Your task to perform on an android device: refresh tabs in the chrome app Image 0: 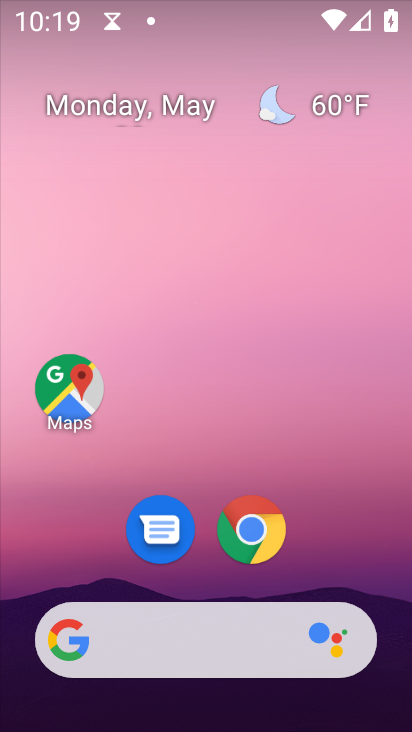
Step 0: click (254, 543)
Your task to perform on an android device: refresh tabs in the chrome app Image 1: 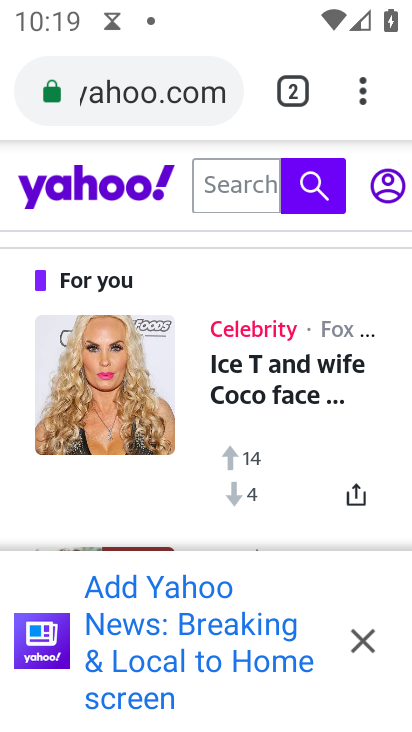
Step 1: click (237, 526)
Your task to perform on an android device: refresh tabs in the chrome app Image 2: 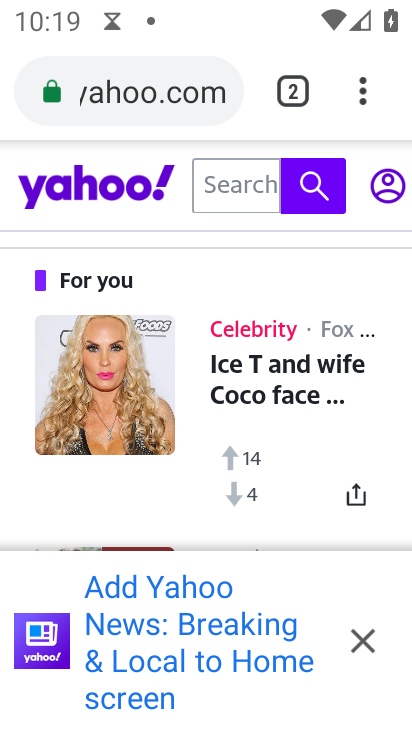
Step 2: click (366, 90)
Your task to perform on an android device: refresh tabs in the chrome app Image 3: 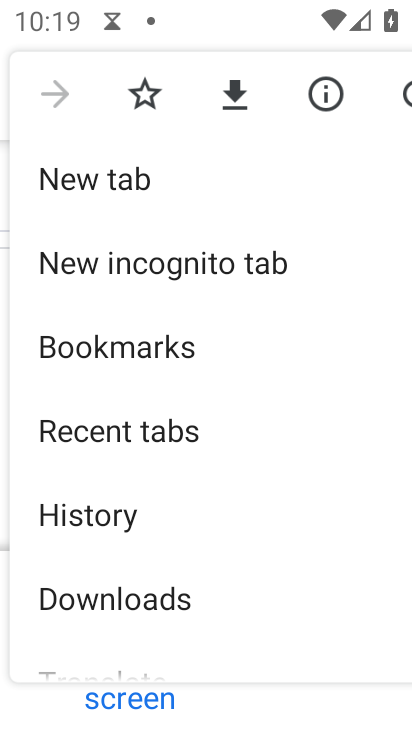
Step 3: click (403, 100)
Your task to perform on an android device: refresh tabs in the chrome app Image 4: 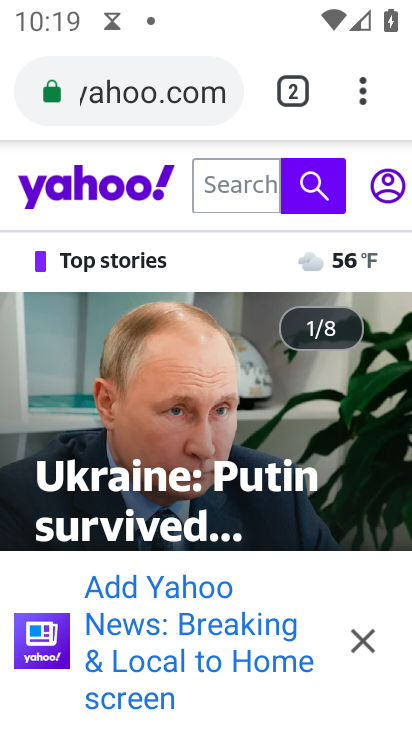
Step 4: task complete